Your task to perform on an android device: empty trash in the gmail app Image 0: 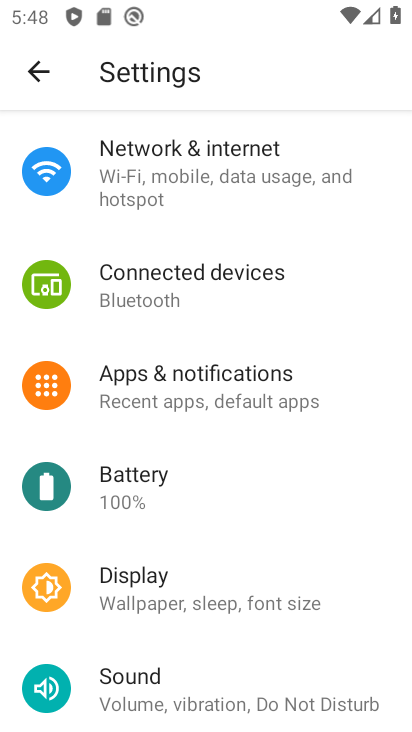
Step 0: task complete